Your task to perform on an android device: Open maps Image 0: 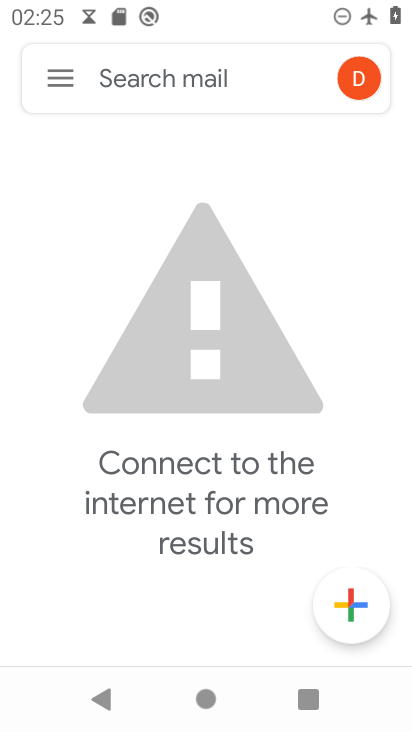
Step 0: press home button
Your task to perform on an android device: Open maps Image 1: 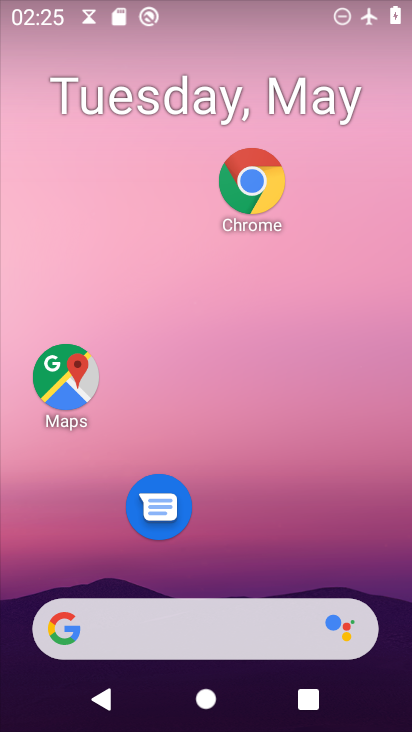
Step 1: click (60, 374)
Your task to perform on an android device: Open maps Image 2: 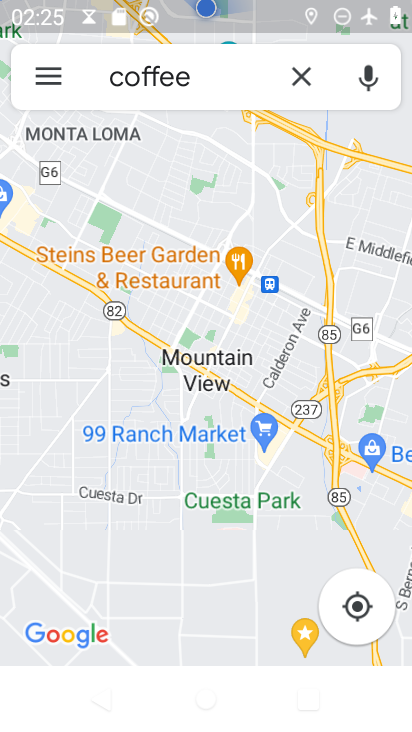
Step 2: task complete